Your task to perform on an android device: Open settings on Google Maps Image 0: 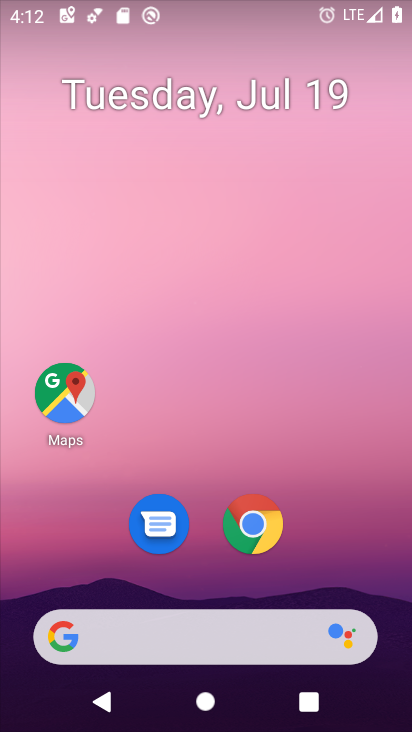
Step 0: click (63, 402)
Your task to perform on an android device: Open settings on Google Maps Image 1: 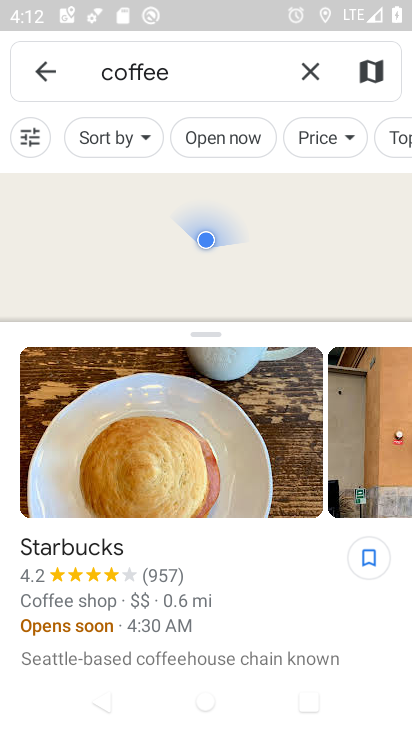
Step 1: click (44, 66)
Your task to perform on an android device: Open settings on Google Maps Image 2: 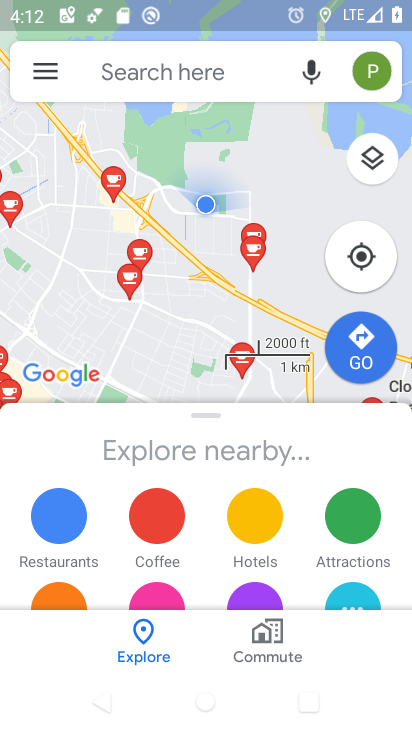
Step 2: click (44, 66)
Your task to perform on an android device: Open settings on Google Maps Image 3: 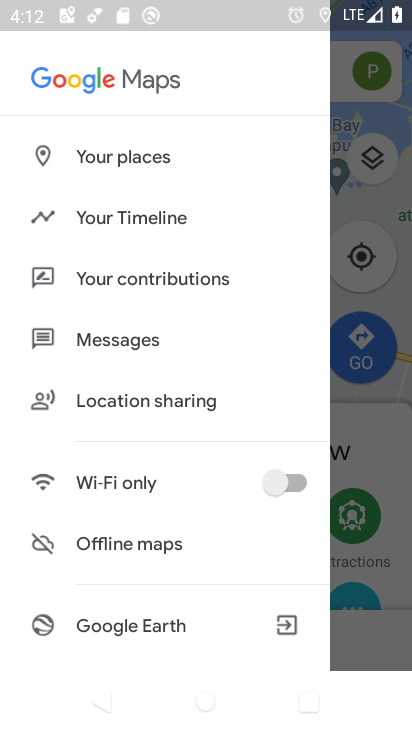
Step 3: drag from (157, 524) to (201, 0)
Your task to perform on an android device: Open settings on Google Maps Image 4: 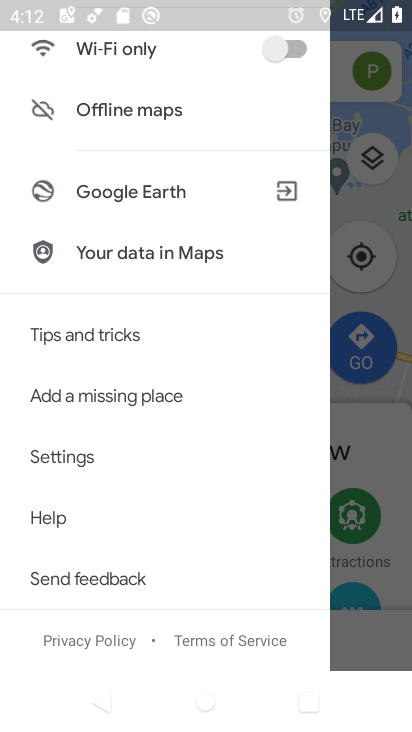
Step 4: click (75, 460)
Your task to perform on an android device: Open settings on Google Maps Image 5: 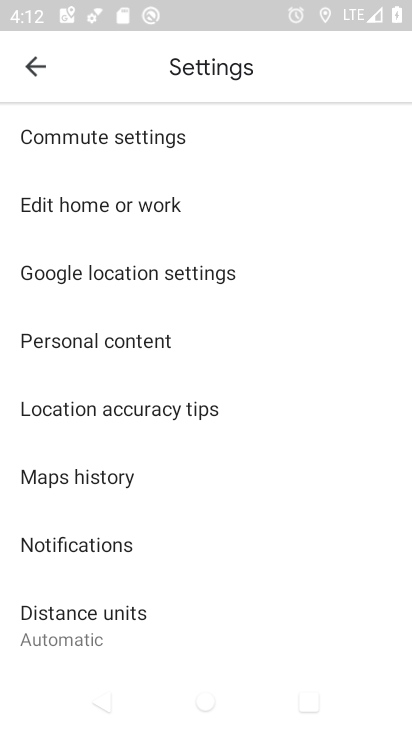
Step 5: task complete